Your task to perform on an android device: Open my contact list Image 0: 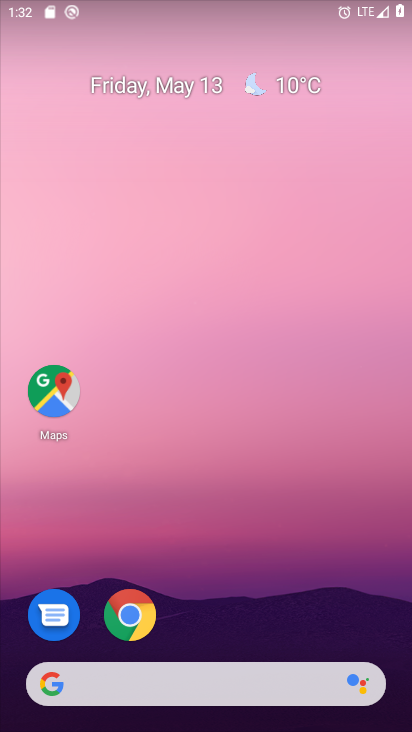
Step 0: drag from (295, 524) to (257, 0)
Your task to perform on an android device: Open my contact list Image 1: 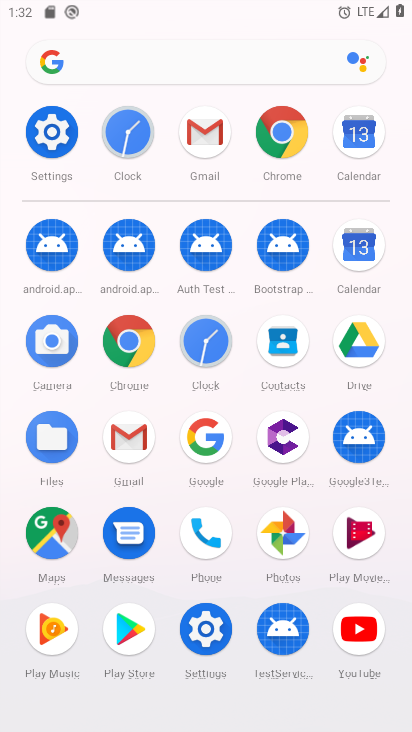
Step 1: click (288, 343)
Your task to perform on an android device: Open my contact list Image 2: 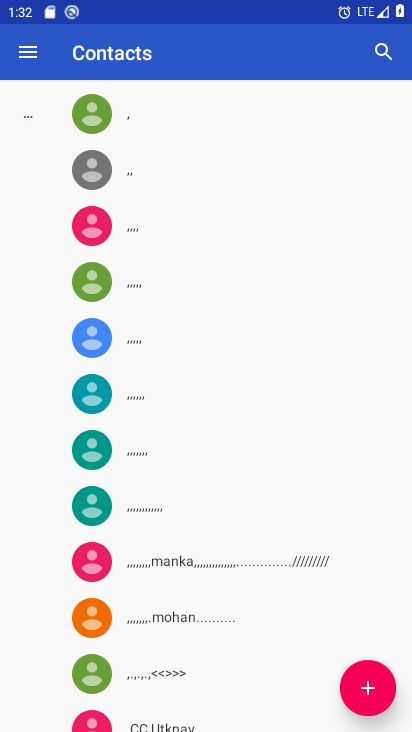
Step 2: task complete